Your task to perform on an android device: Empty the shopping cart on bestbuy.com. Image 0: 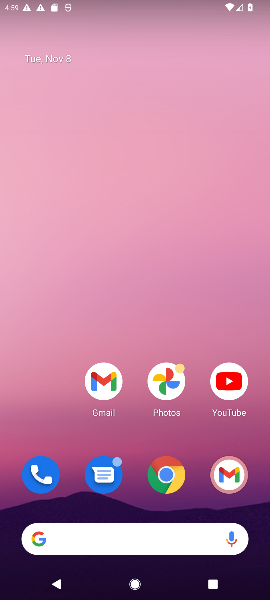
Step 0: drag from (90, 537) to (105, 205)
Your task to perform on an android device: Empty the shopping cart on bestbuy.com. Image 1: 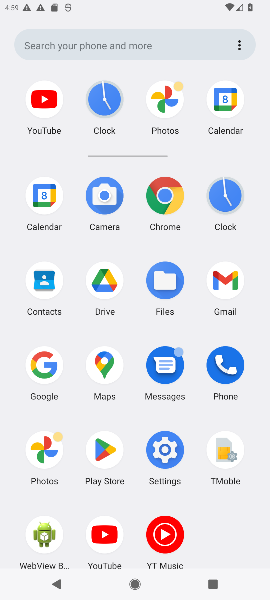
Step 1: click (41, 361)
Your task to perform on an android device: Empty the shopping cart on bestbuy.com. Image 2: 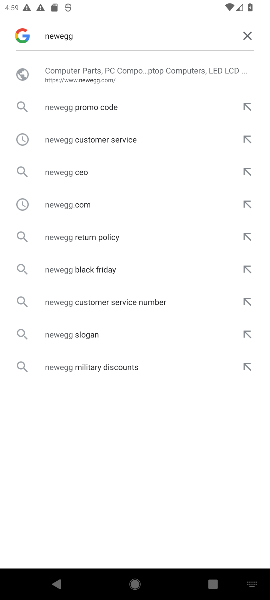
Step 2: click (244, 40)
Your task to perform on an android device: Empty the shopping cart on bestbuy.com. Image 3: 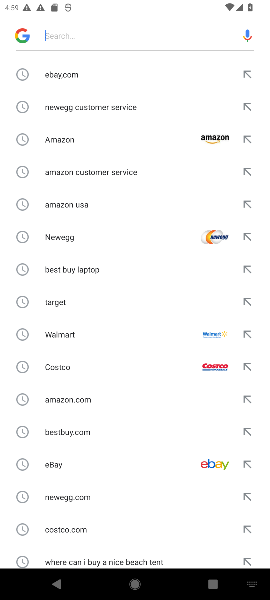
Step 3: click (100, 25)
Your task to perform on an android device: Empty the shopping cart on bestbuy.com. Image 4: 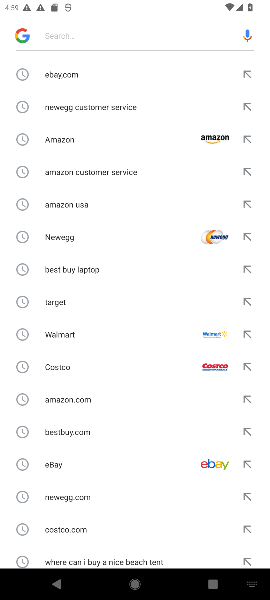
Step 4: type "bestbuy "
Your task to perform on an android device: Empty the shopping cart on bestbuy.com. Image 5: 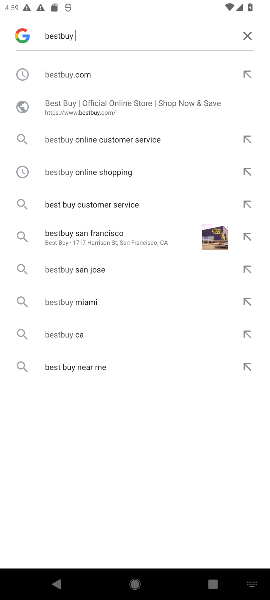
Step 5: click (87, 70)
Your task to perform on an android device: Empty the shopping cart on bestbuy.com. Image 6: 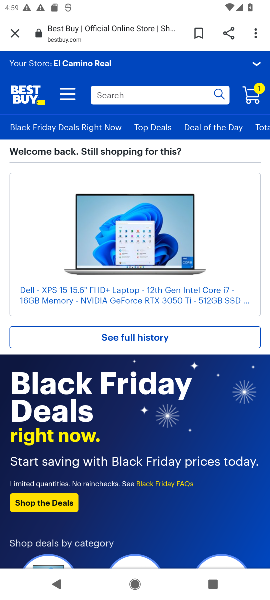
Step 6: click (254, 94)
Your task to perform on an android device: Empty the shopping cart on bestbuy.com. Image 7: 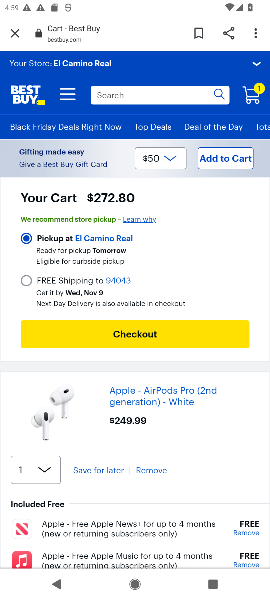
Step 7: click (149, 468)
Your task to perform on an android device: Empty the shopping cart on bestbuy.com. Image 8: 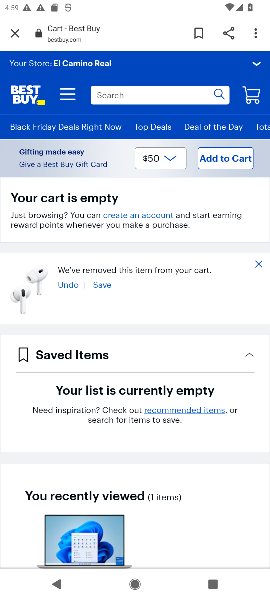
Step 8: task complete